Your task to perform on an android device: Is it going to rain tomorrow? Image 0: 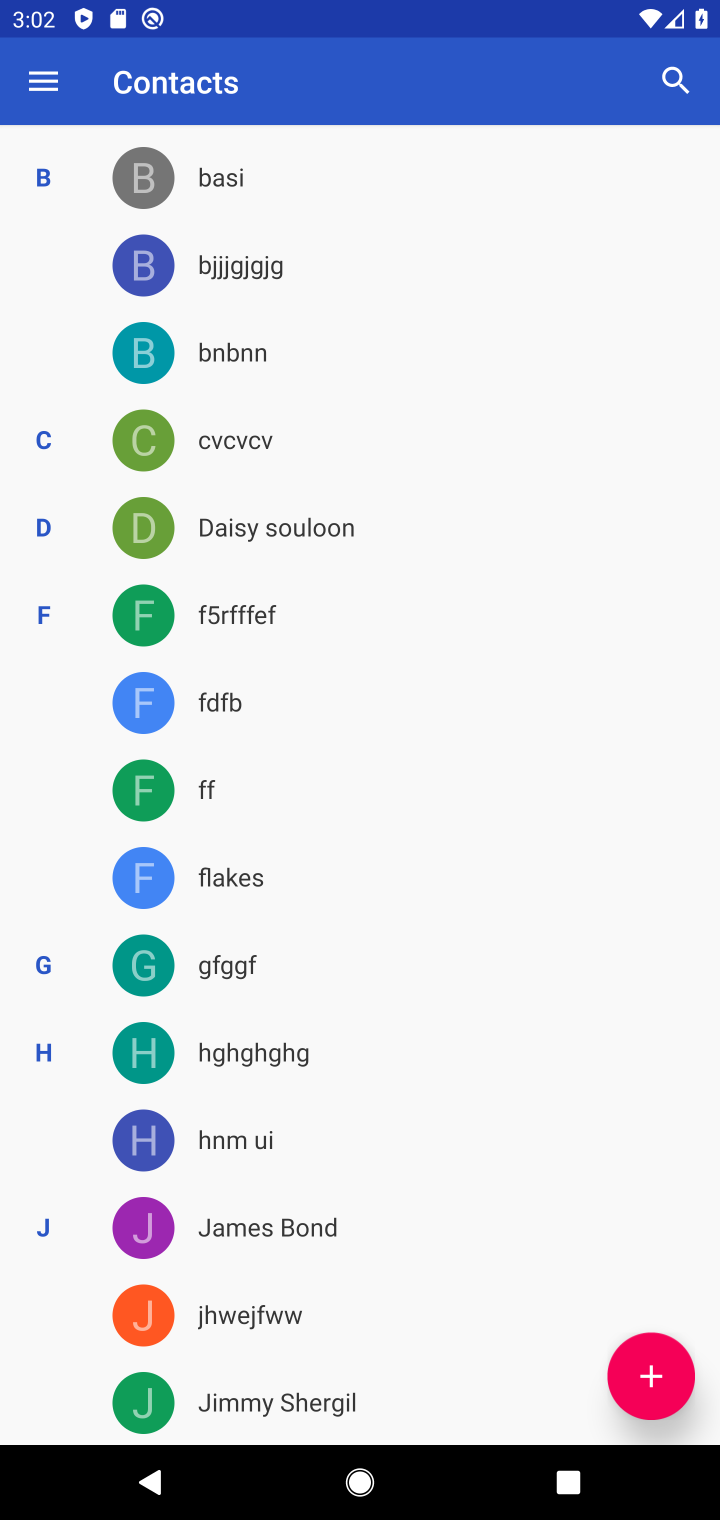
Step 0: press home button
Your task to perform on an android device: Is it going to rain tomorrow? Image 1: 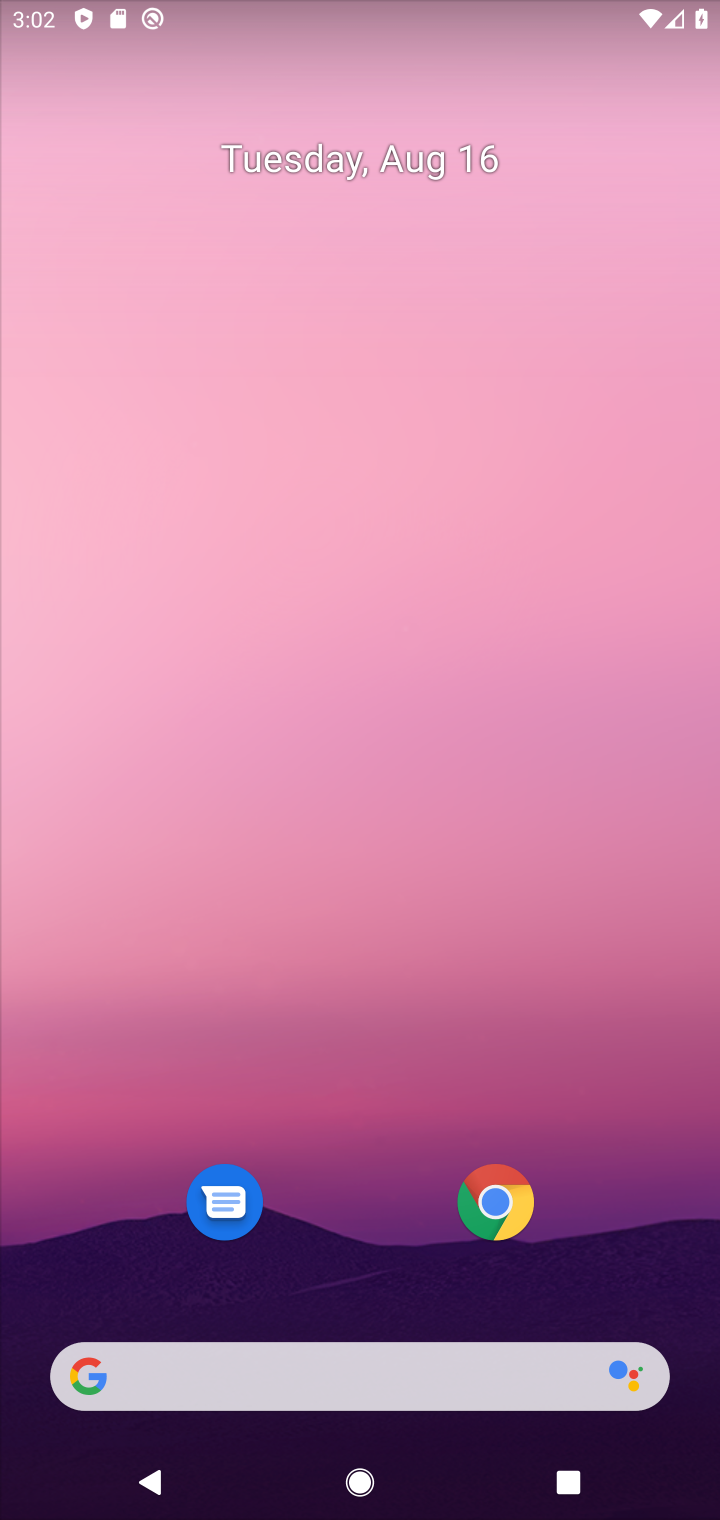
Step 1: drag from (419, 1143) to (533, 36)
Your task to perform on an android device: Is it going to rain tomorrow? Image 2: 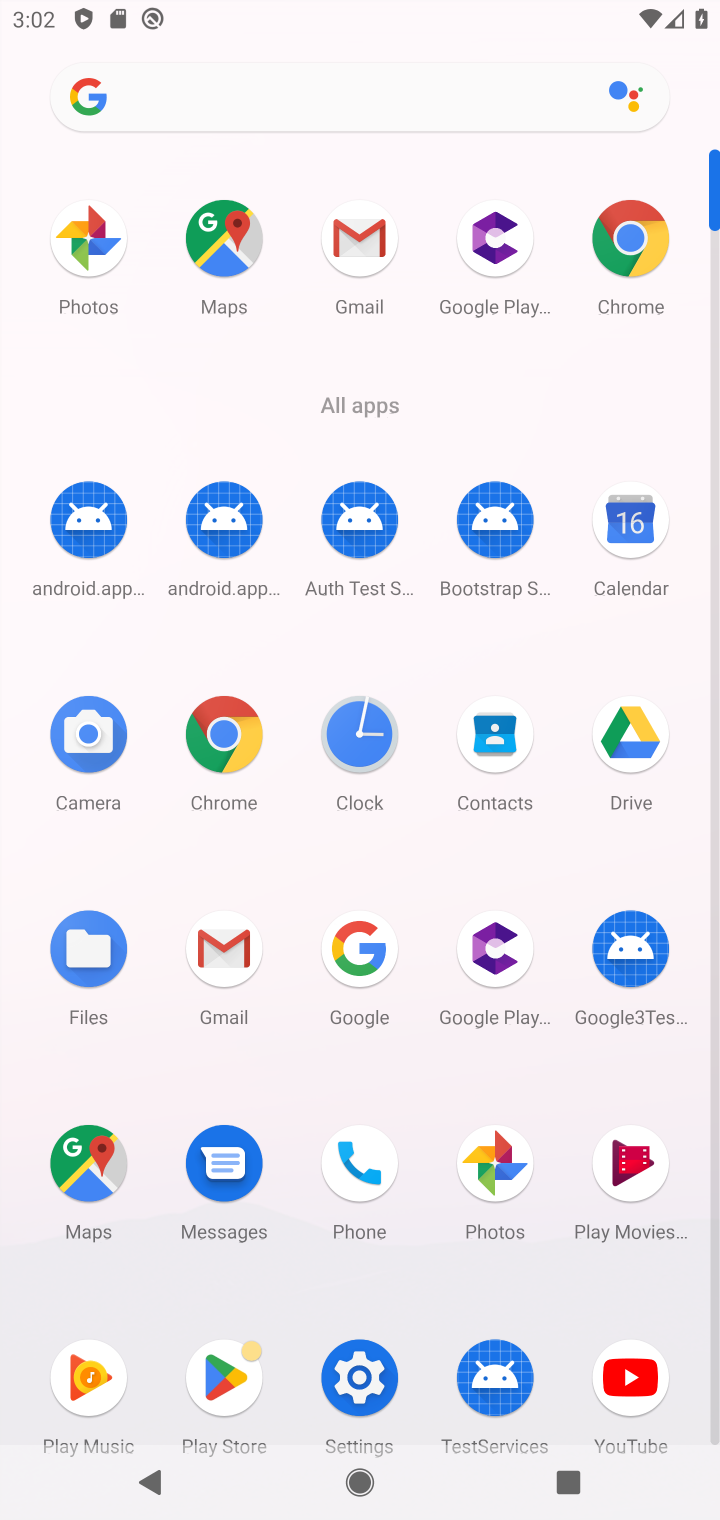
Step 2: click (224, 772)
Your task to perform on an android device: Is it going to rain tomorrow? Image 3: 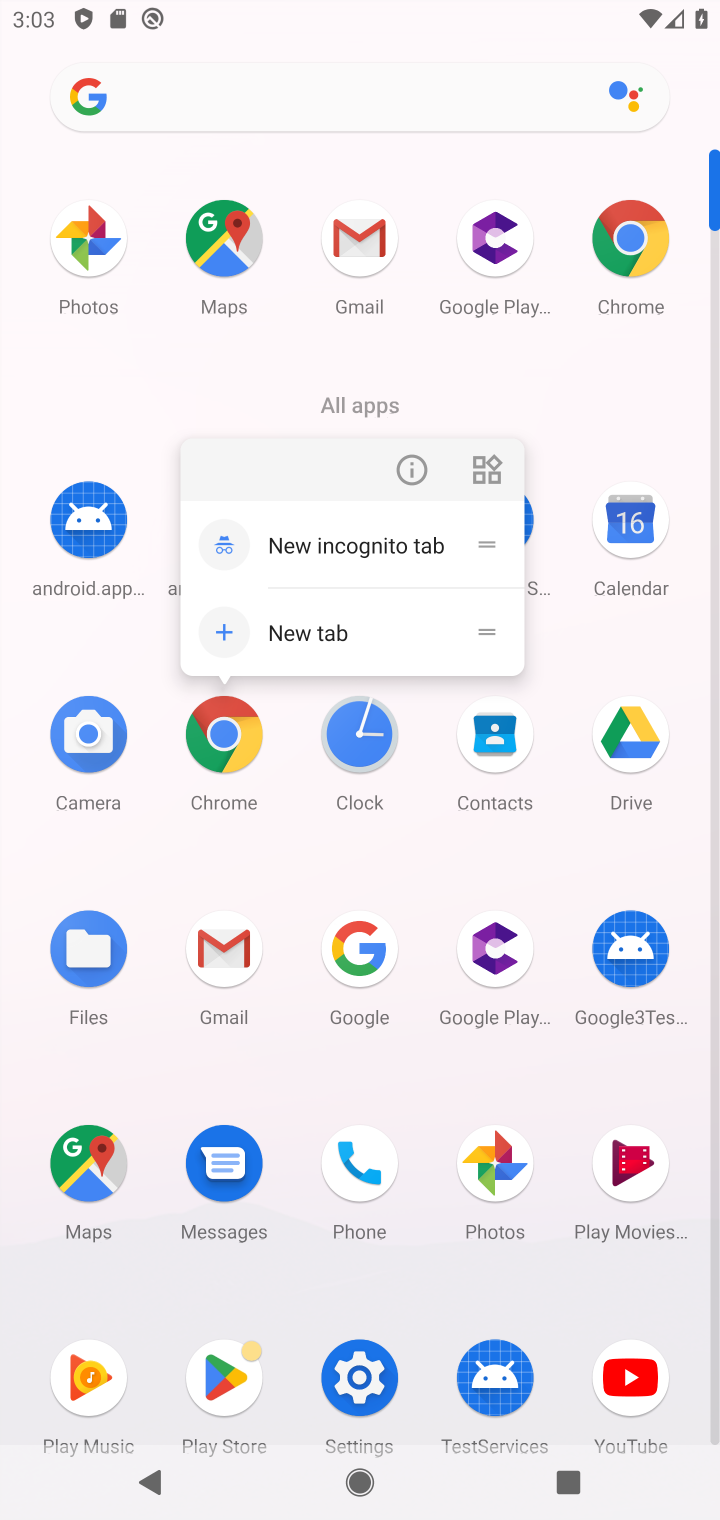
Step 3: click (221, 760)
Your task to perform on an android device: Is it going to rain tomorrow? Image 4: 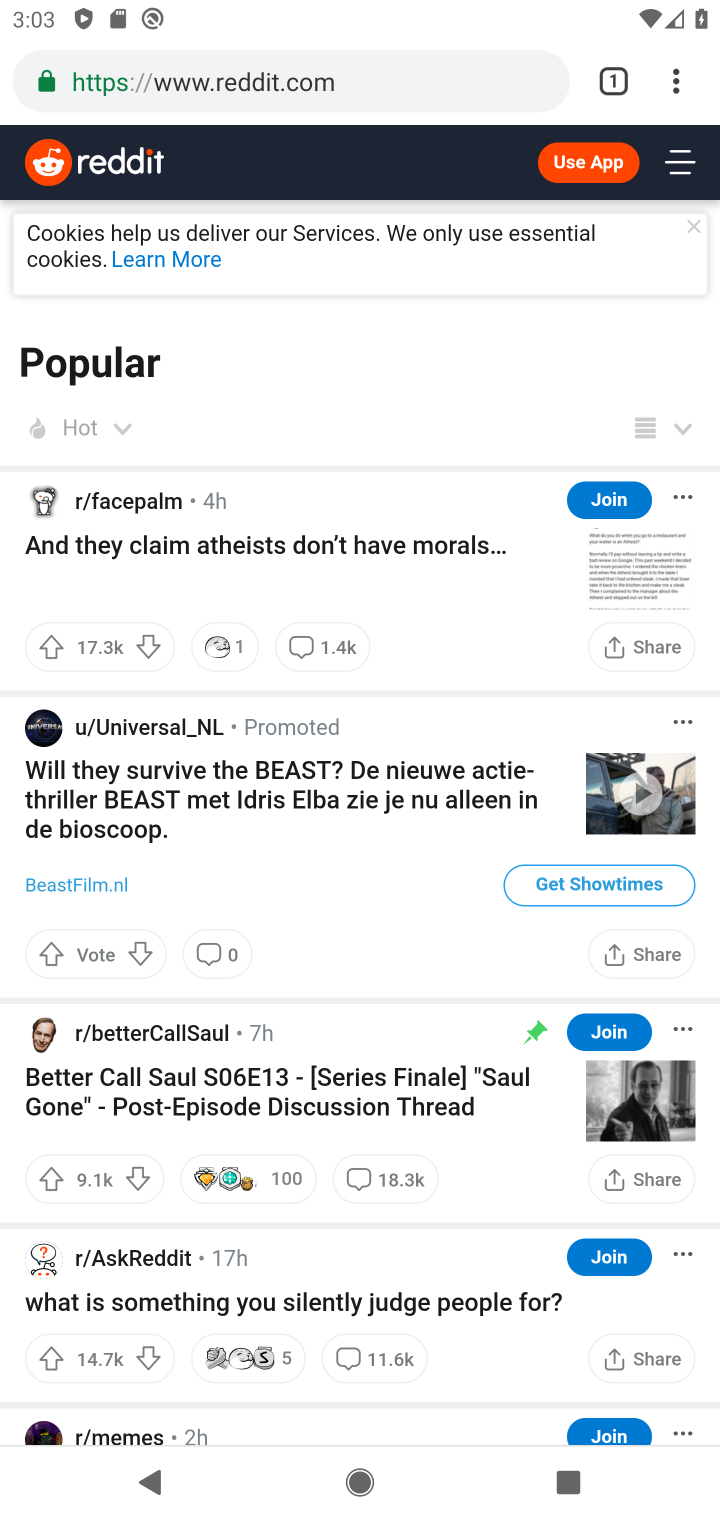
Step 4: click (621, 96)
Your task to perform on an android device: Is it going to rain tomorrow? Image 5: 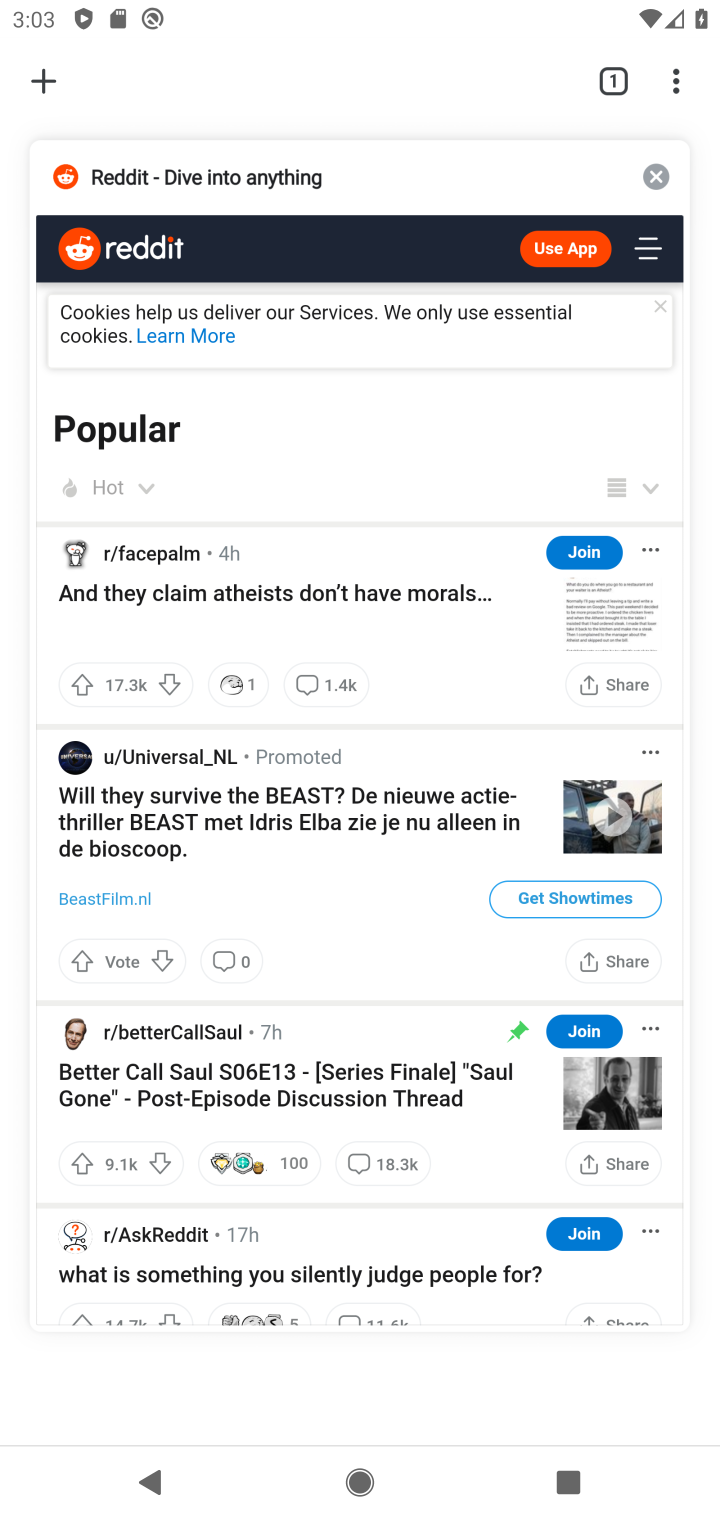
Step 5: click (36, 94)
Your task to perform on an android device: Is it going to rain tomorrow? Image 6: 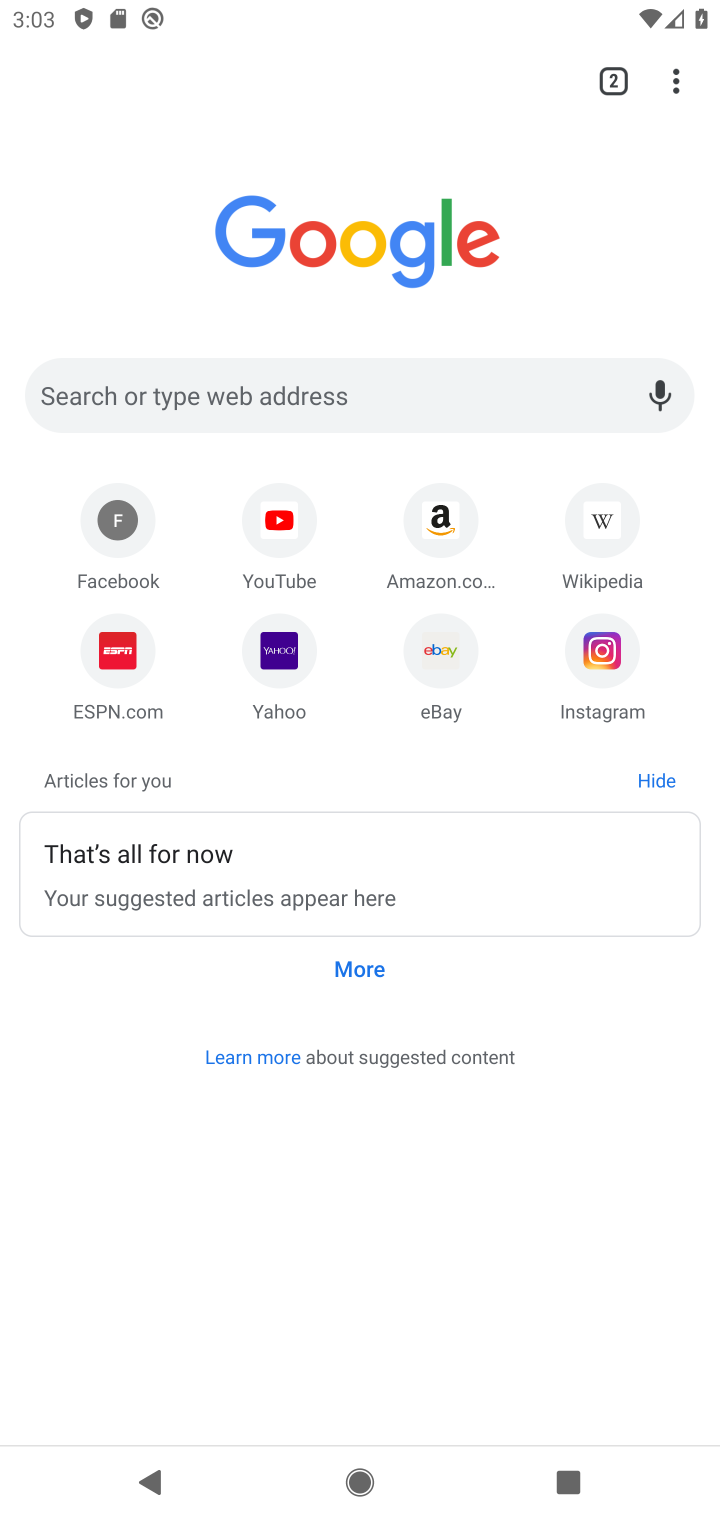
Step 6: click (364, 413)
Your task to perform on an android device: Is it going to rain tomorrow? Image 7: 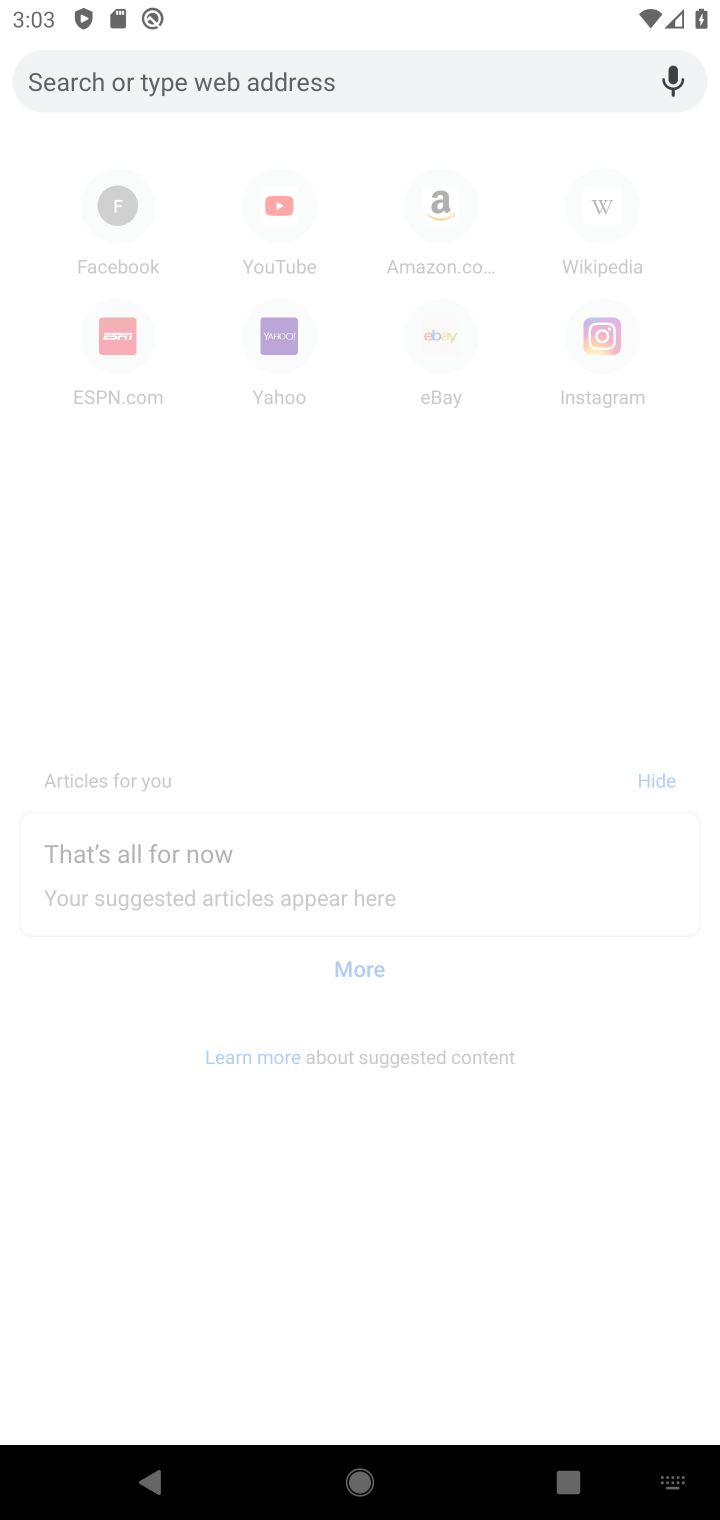
Step 7: type "Is it going to rain tomorrow?"
Your task to perform on an android device: Is it going to rain tomorrow? Image 8: 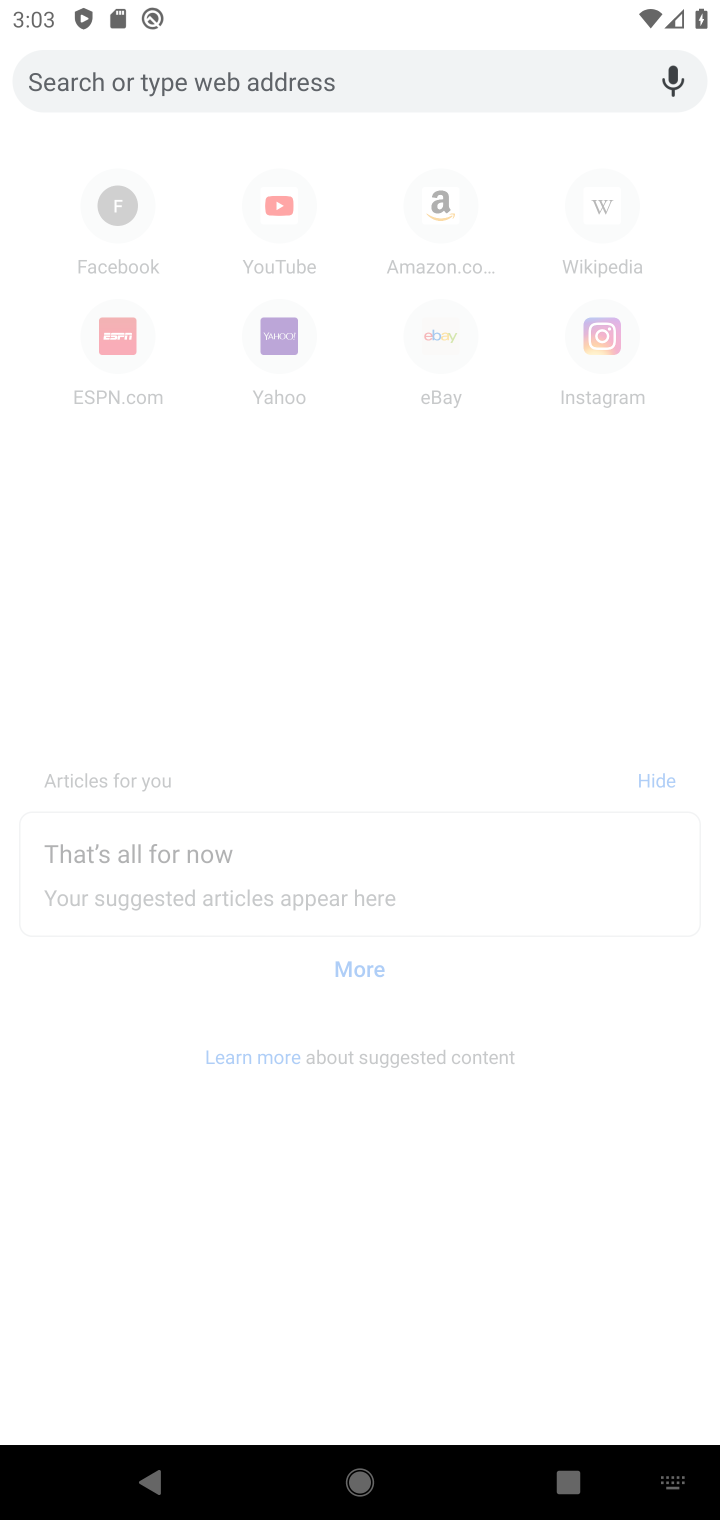
Step 8: click (284, 93)
Your task to perform on an android device: Is it going to rain tomorrow? Image 9: 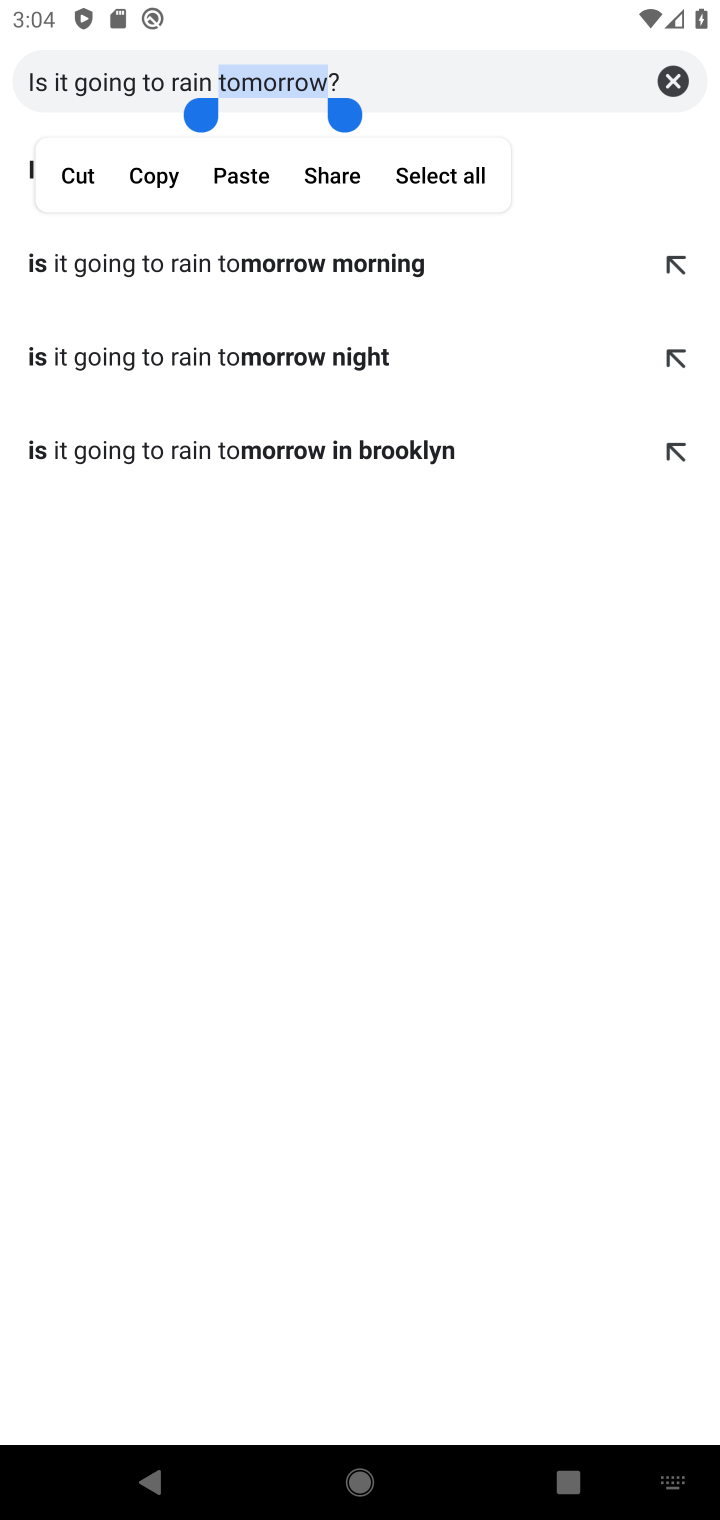
Step 9: click (558, 196)
Your task to perform on an android device: Is it going to rain tomorrow? Image 10: 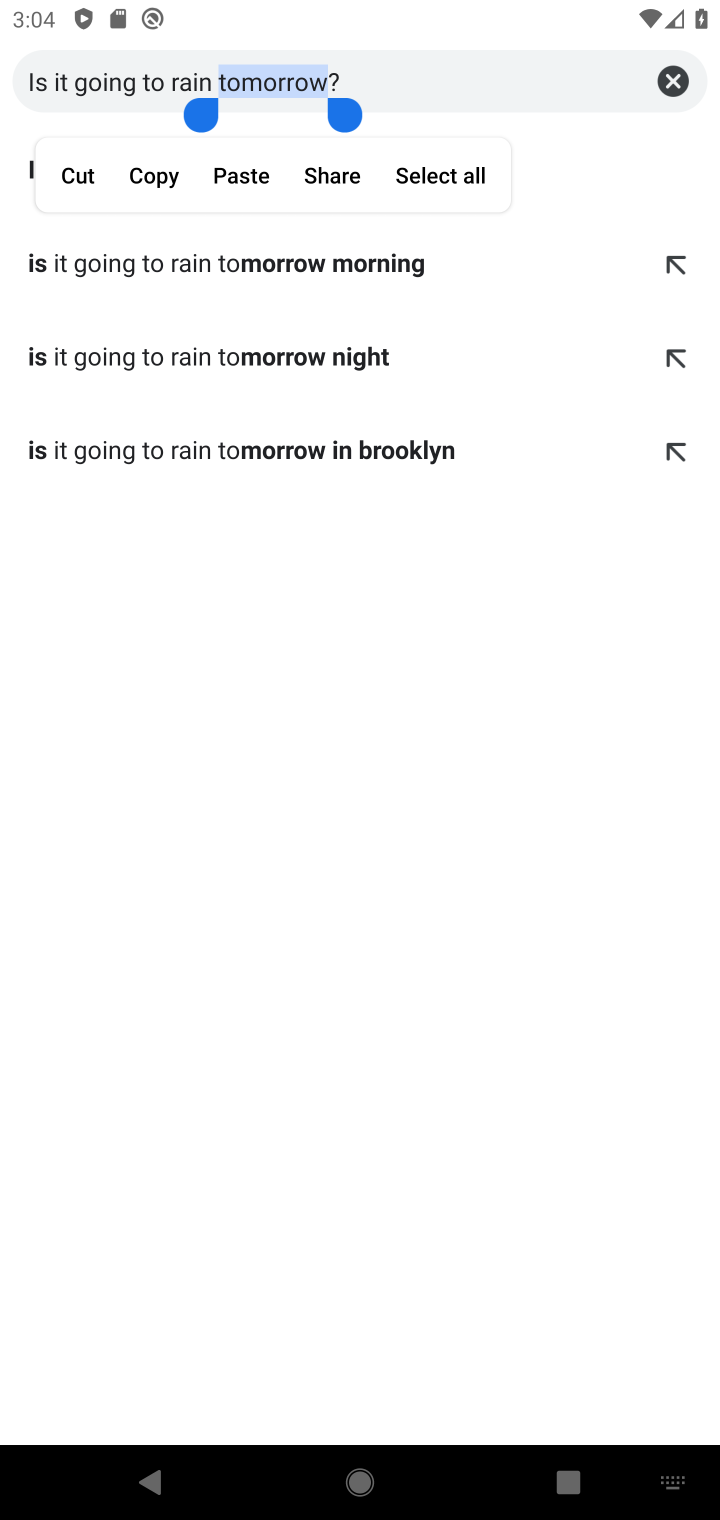
Step 10: click (584, 184)
Your task to perform on an android device: Is it going to rain tomorrow? Image 11: 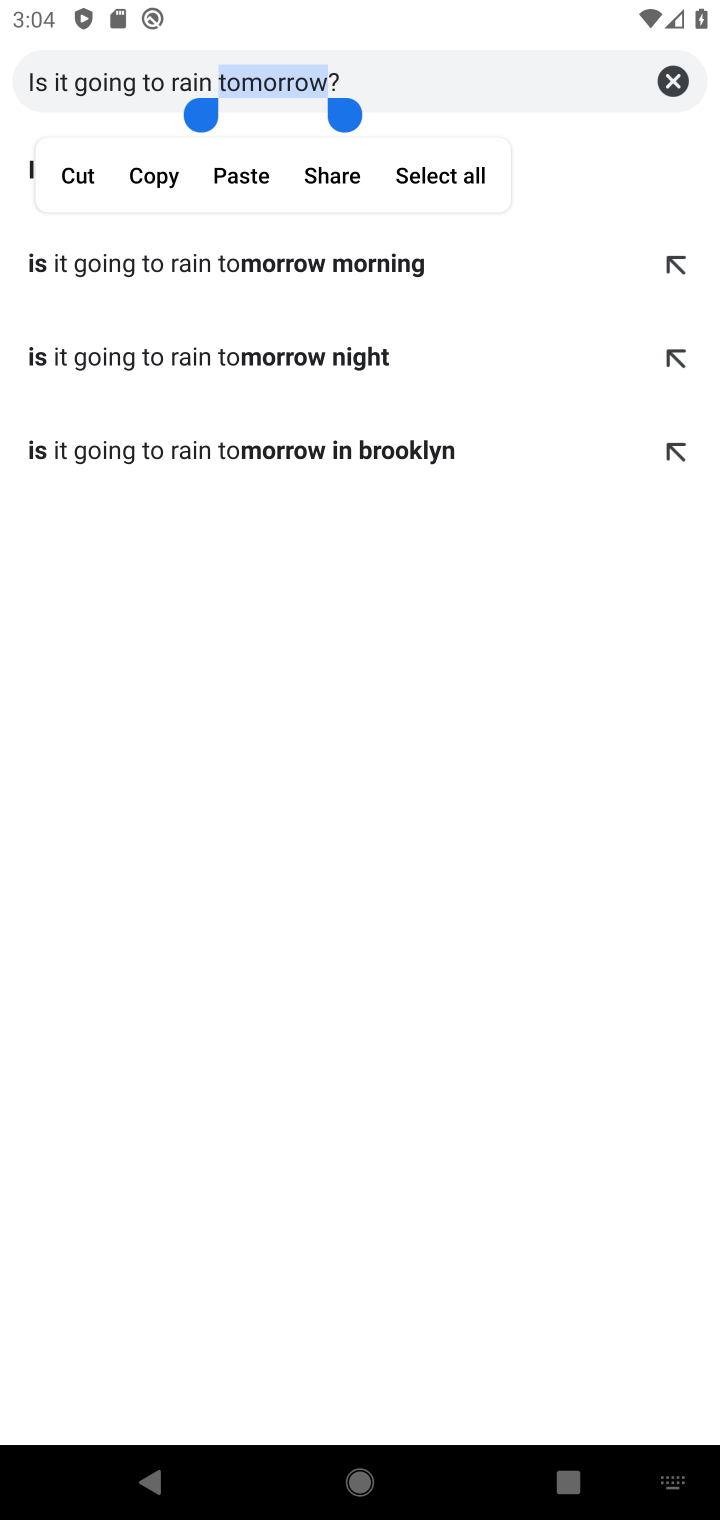
Step 11: click (599, 200)
Your task to perform on an android device: Is it going to rain tomorrow? Image 12: 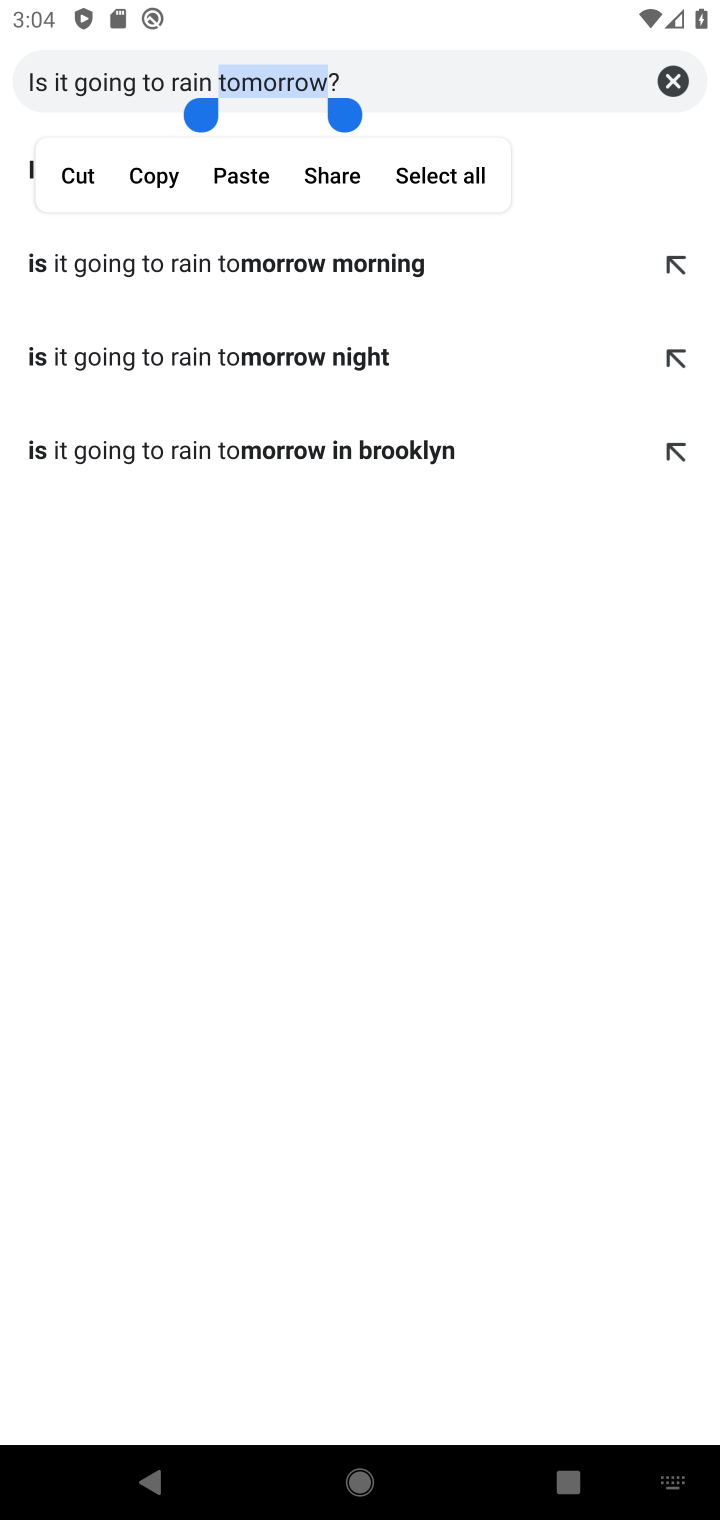
Step 12: click (590, 203)
Your task to perform on an android device: Is it going to rain tomorrow? Image 13: 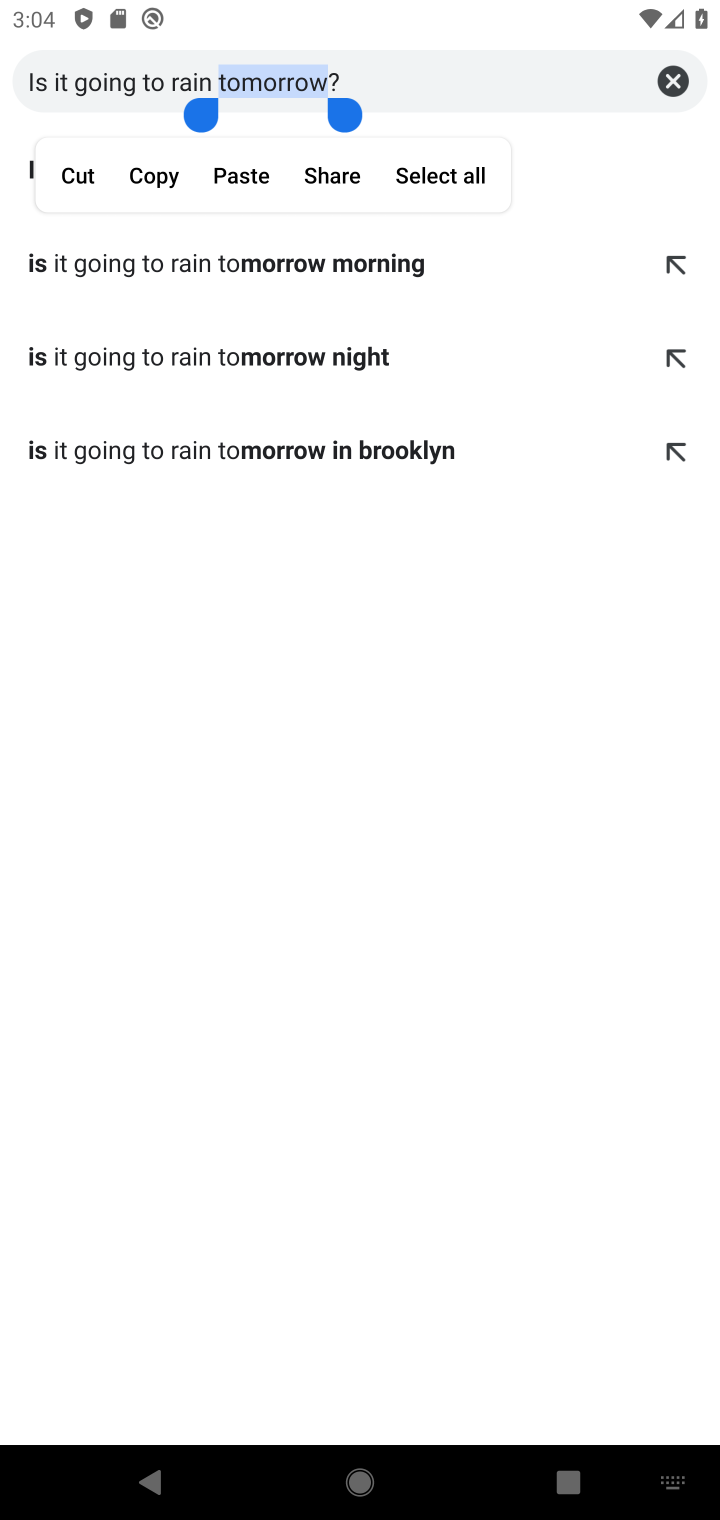
Step 13: click (508, 96)
Your task to perform on an android device: Is it going to rain tomorrow? Image 14: 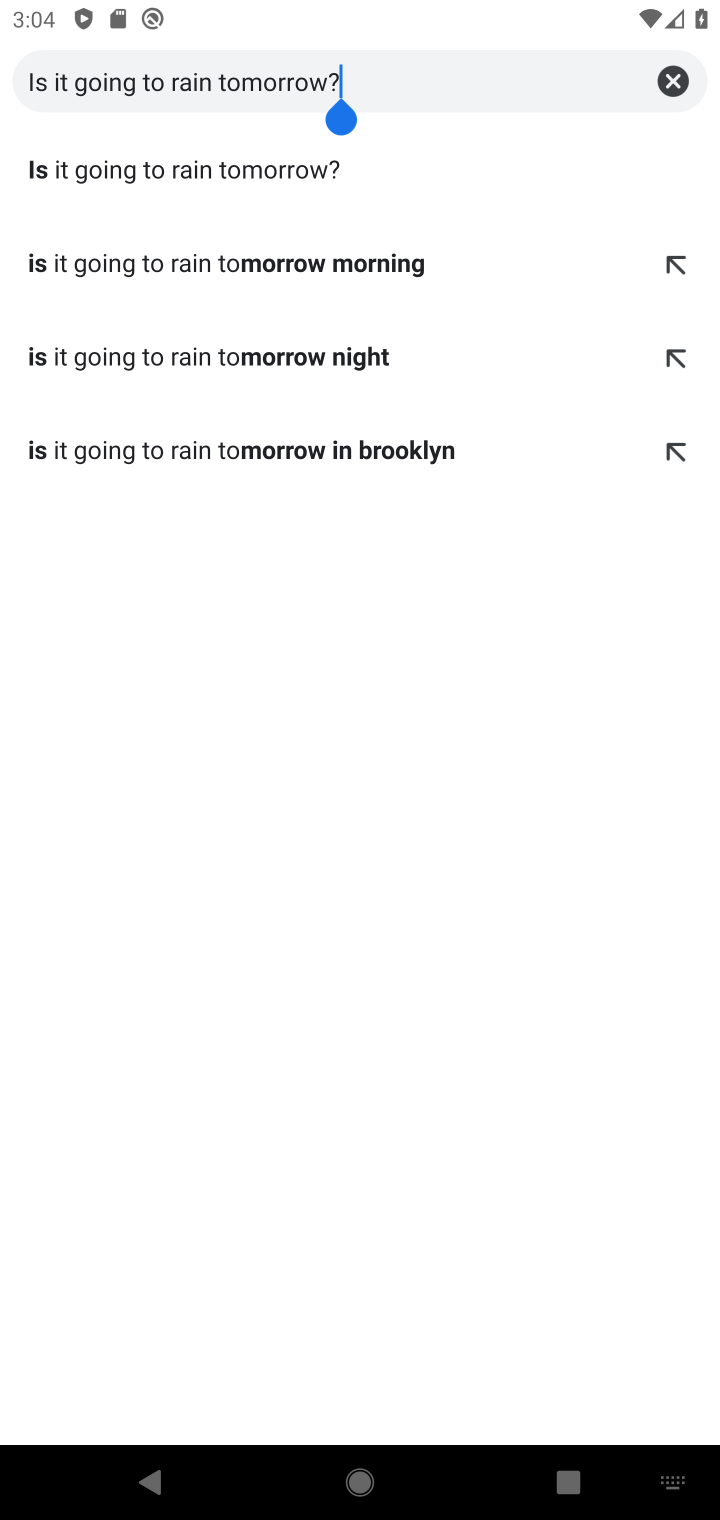
Step 14: click (399, 191)
Your task to perform on an android device: Is it going to rain tomorrow? Image 15: 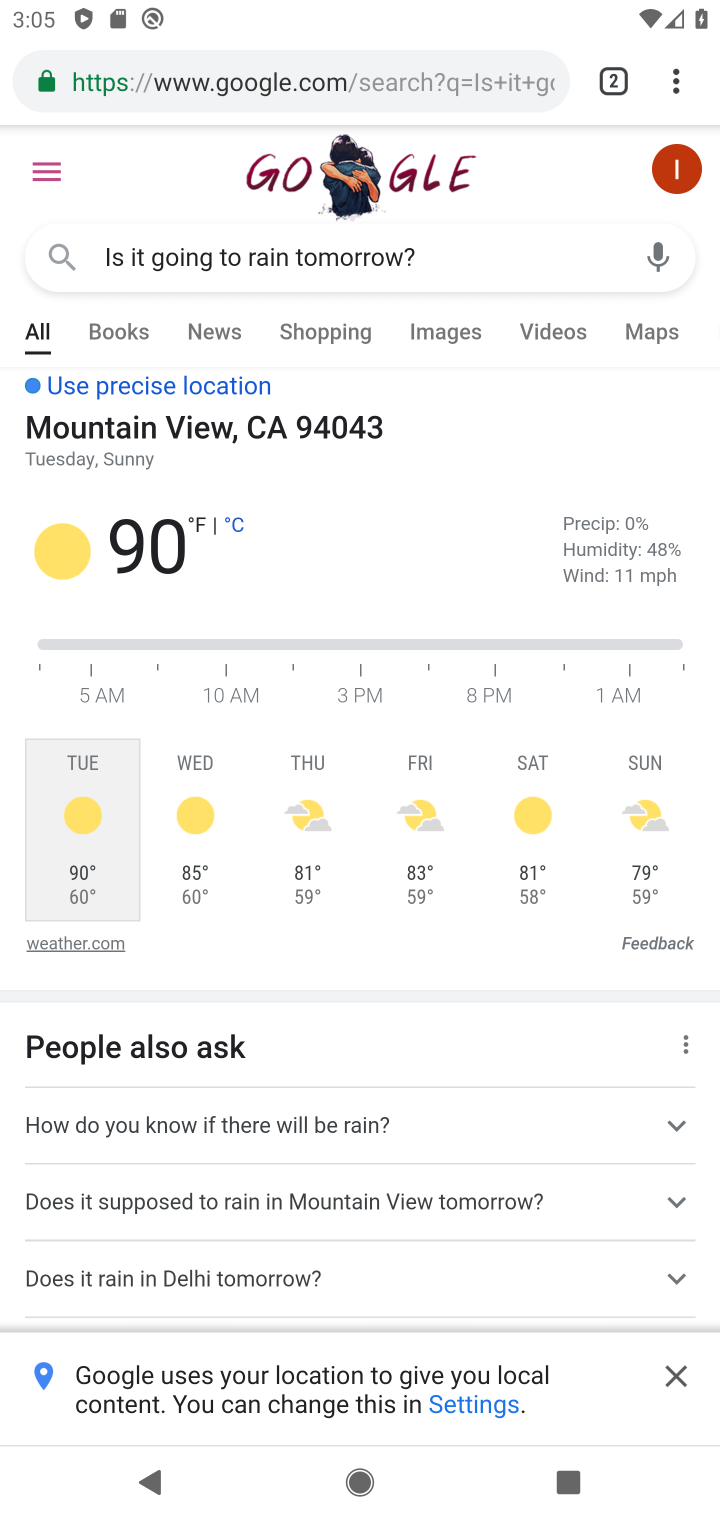
Step 15: task complete